Your task to perform on an android device: Show the shopping cart on ebay.com. Add "razer blade" to the cart on ebay.com, then select checkout. Image 0: 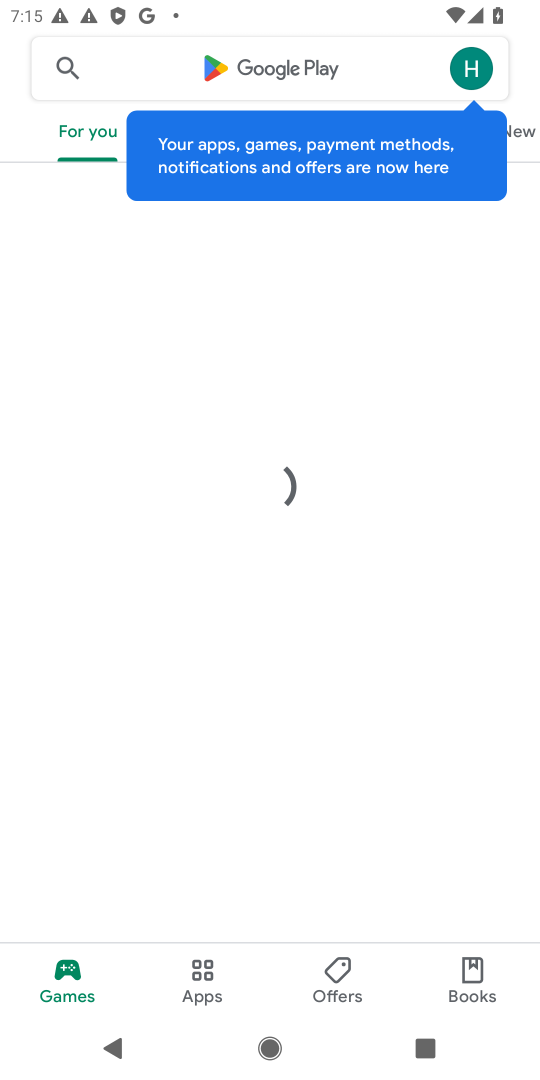
Step 0: press home button
Your task to perform on an android device: Show the shopping cart on ebay.com. Add "razer blade" to the cart on ebay.com, then select checkout. Image 1: 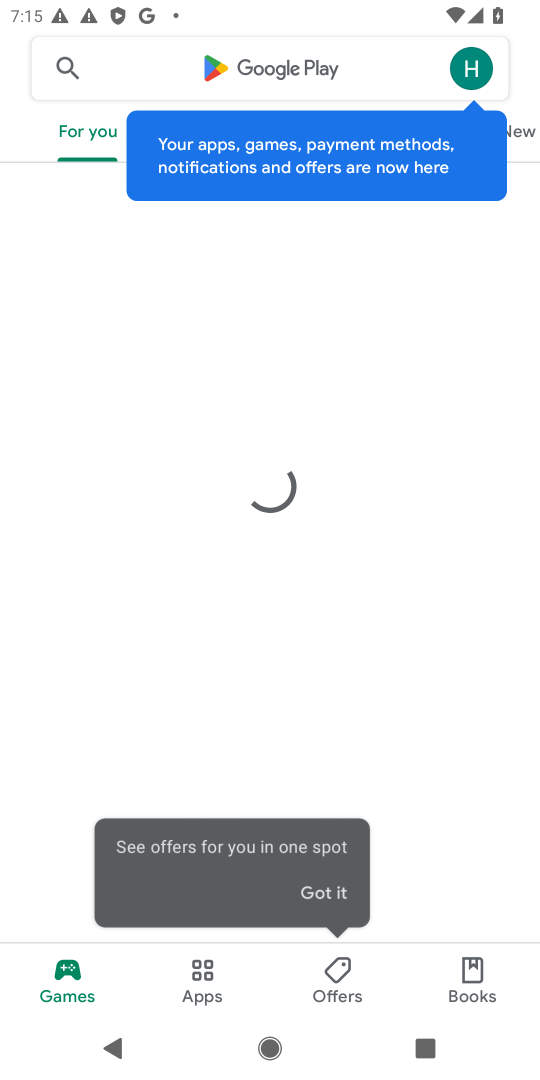
Step 1: press home button
Your task to perform on an android device: Show the shopping cart on ebay.com. Add "razer blade" to the cart on ebay.com, then select checkout. Image 2: 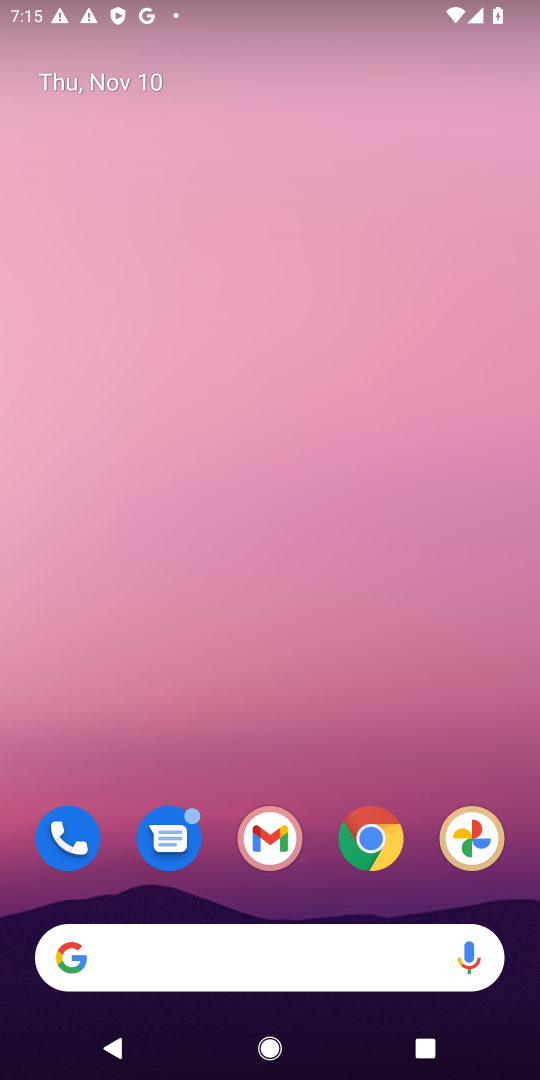
Step 2: drag from (324, 924) to (322, 138)
Your task to perform on an android device: Show the shopping cart on ebay.com. Add "razer blade" to the cart on ebay.com, then select checkout. Image 3: 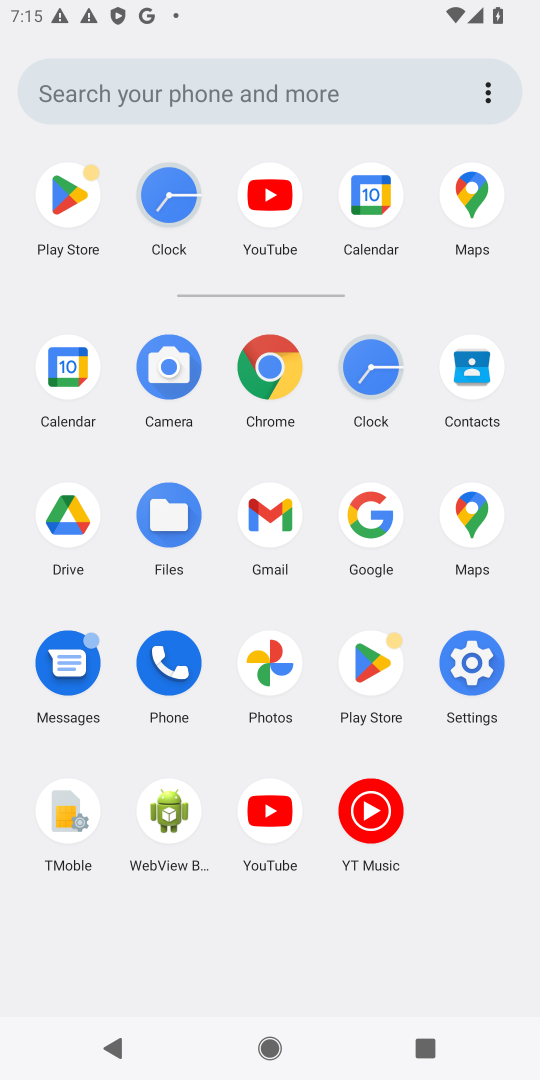
Step 3: click (263, 369)
Your task to perform on an android device: Show the shopping cart on ebay.com. Add "razer blade" to the cart on ebay.com, then select checkout. Image 4: 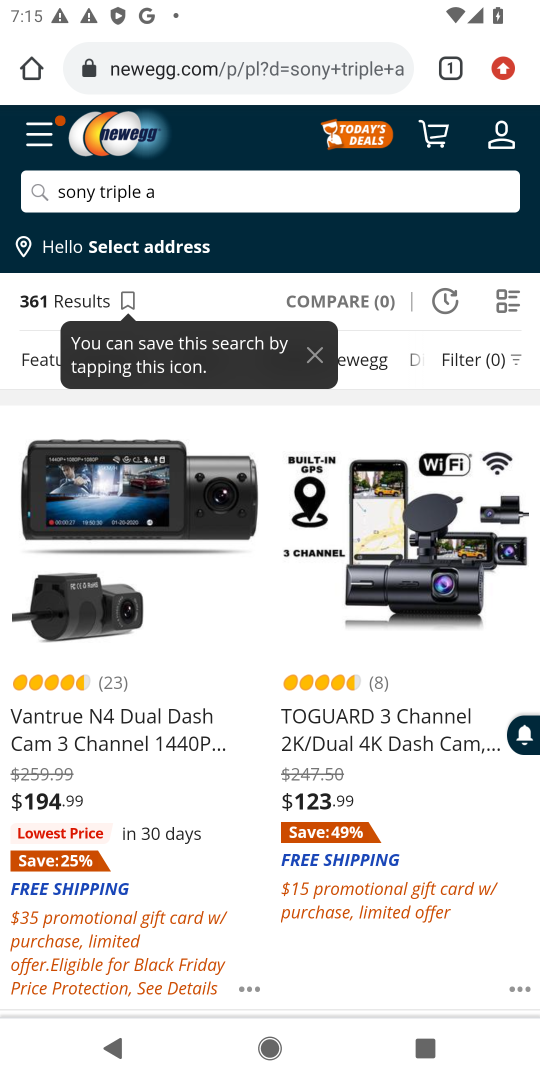
Step 4: click (267, 64)
Your task to perform on an android device: Show the shopping cart on ebay.com. Add "razer blade" to the cart on ebay.com, then select checkout. Image 5: 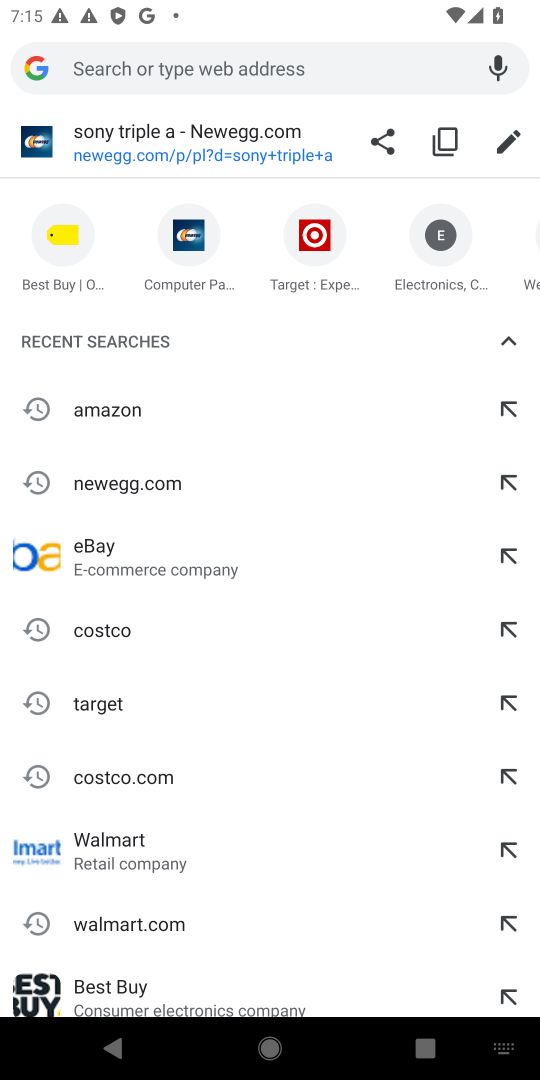
Step 5: type "ebay.com"
Your task to perform on an android device: Show the shopping cart on ebay.com. Add "razer blade" to the cart on ebay.com, then select checkout. Image 6: 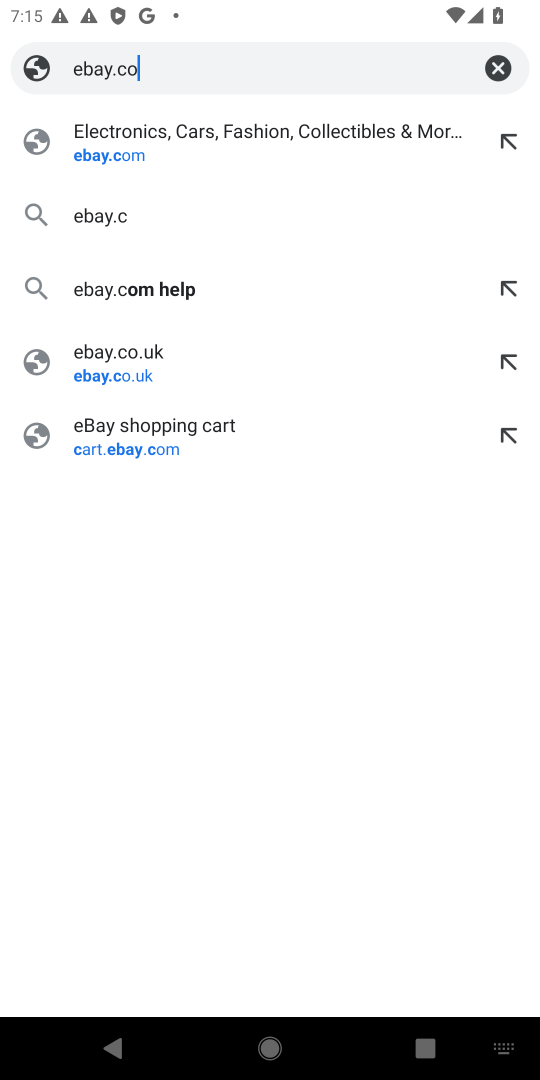
Step 6: press enter
Your task to perform on an android device: Show the shopping cart on ebay.com. Add "razer blade" to the cart on ebay.com, then select checkout. Image 7: 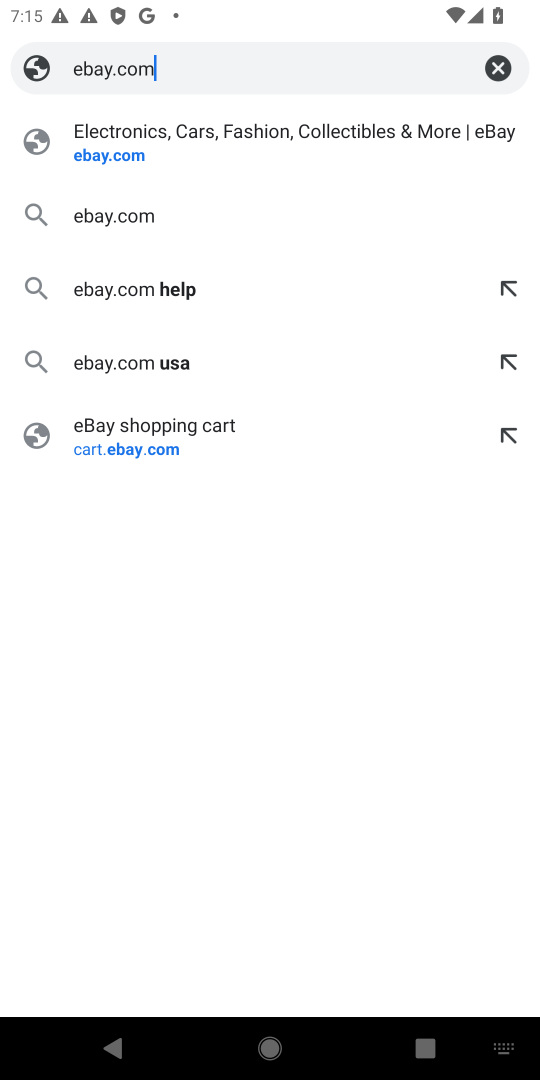
Step 7: press enter
Your task to perform on an android device: Show the shopping cart on ebay.com. Add "razer blade" to the cart on ebay.com, then select checkout. Image 8: 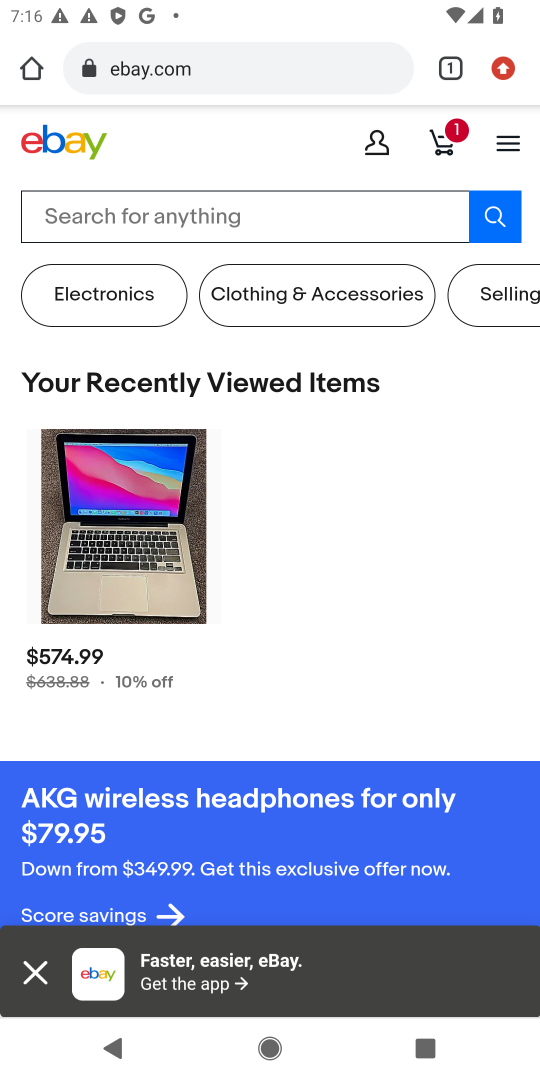
Step 8: click (444, 128)
Your task to perform on an android device: Show the shopping cart on ebay.com. Add "razer blade" to the cart on ebay.com, then select checkout. Image 9: 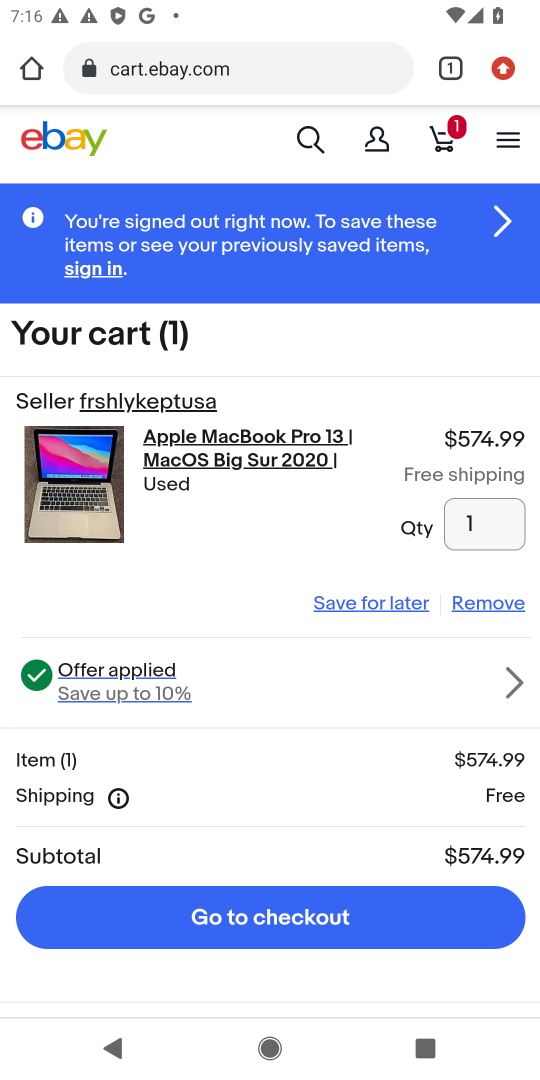
Step 9: click (500, 606)
Your task to perform on an android device: Show the shopping cart on ebay.com. Add "razer blade" to the cart on ebay.com, then select checkout. Image 10: 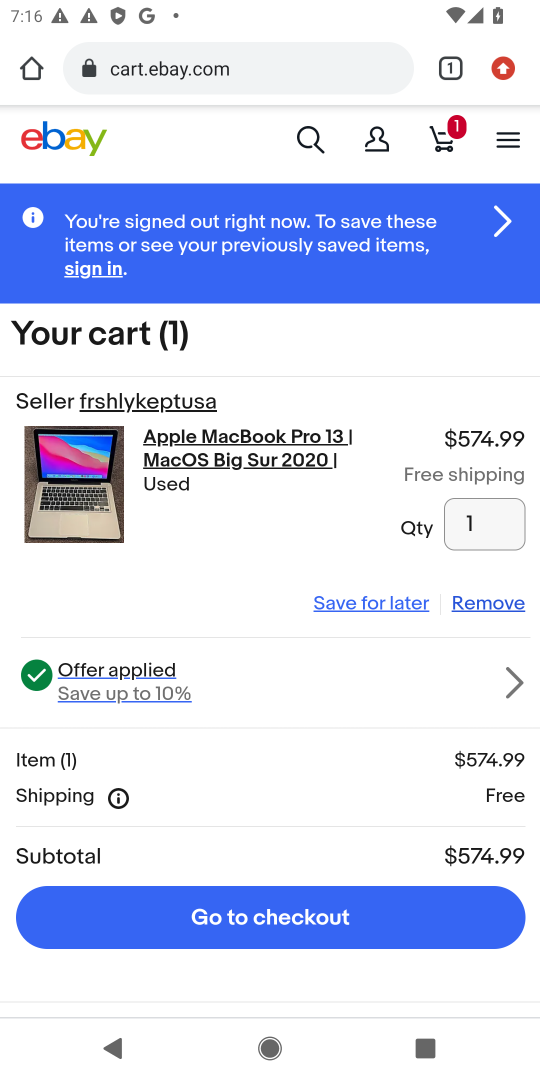
Step 10: click (307, 132)
Your task to perform on an android device: Show the shopping cart on ebay.com. Add "razer blade" to the cart on ebay.com, then select checkout. Image 11: 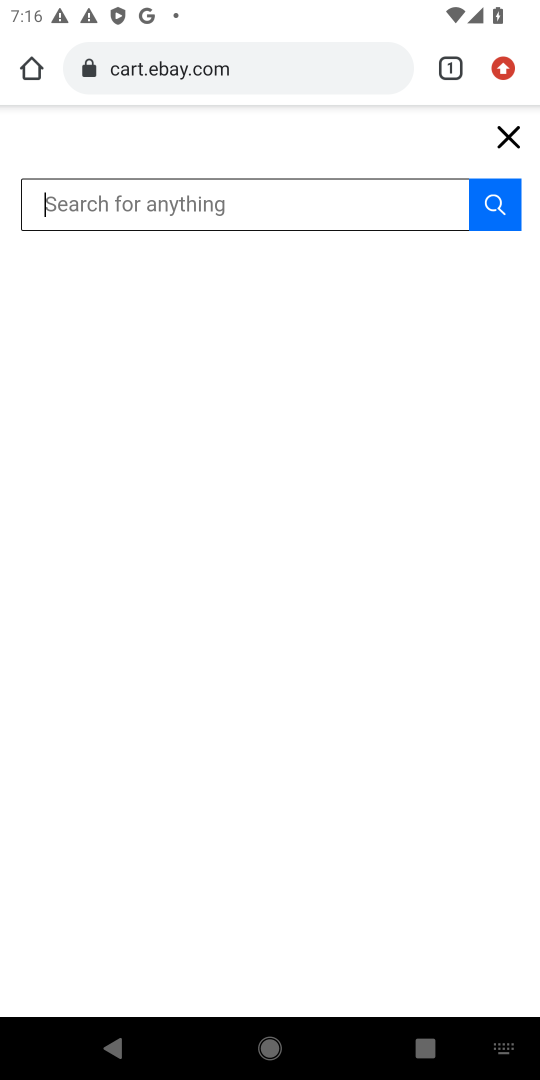
Step 11: type "razer blade"
Your task to perform on an android device: Show the shopping cart on ebay.com. Add "razer blade" to the cart on ebay.com, then select checkout. Image 12: 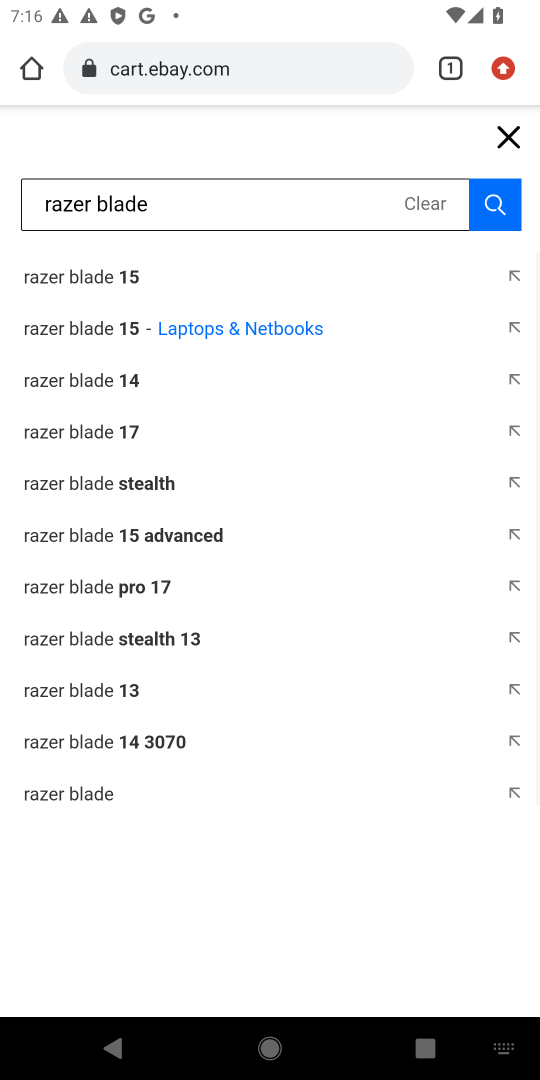
Step 12: press enter
Your task to perform on an android device: Show the shopping cart on ebay.com. Add "razer blade" to the cart on ebay.com, then select checkout. Image 13: 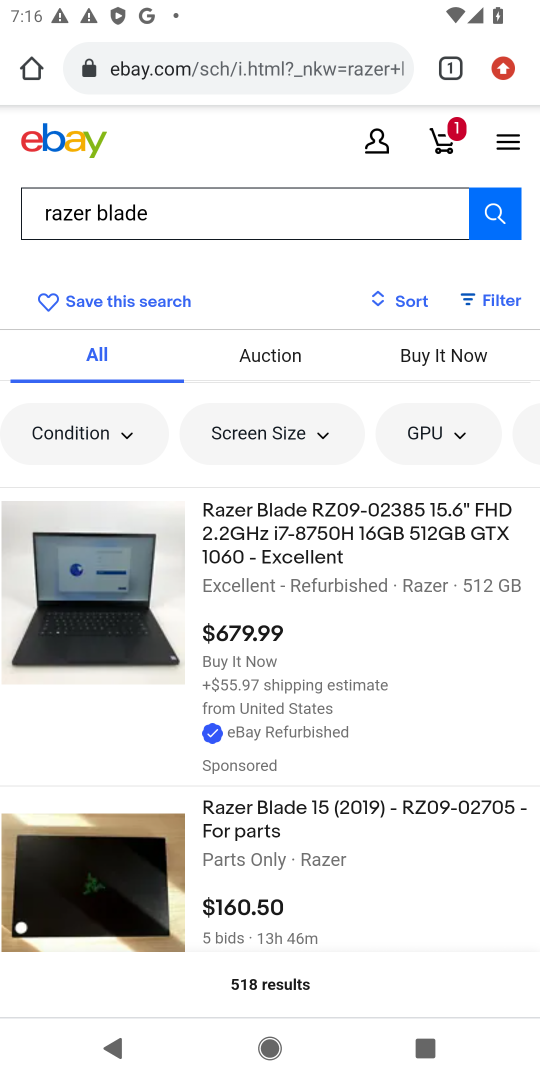
Step 13: click (354, 529)
Your task to perform on an android device: Show the shopping cart on ebay.com. Add "razer blade" to the cart on ebay.com, then select checkout. Image 14: 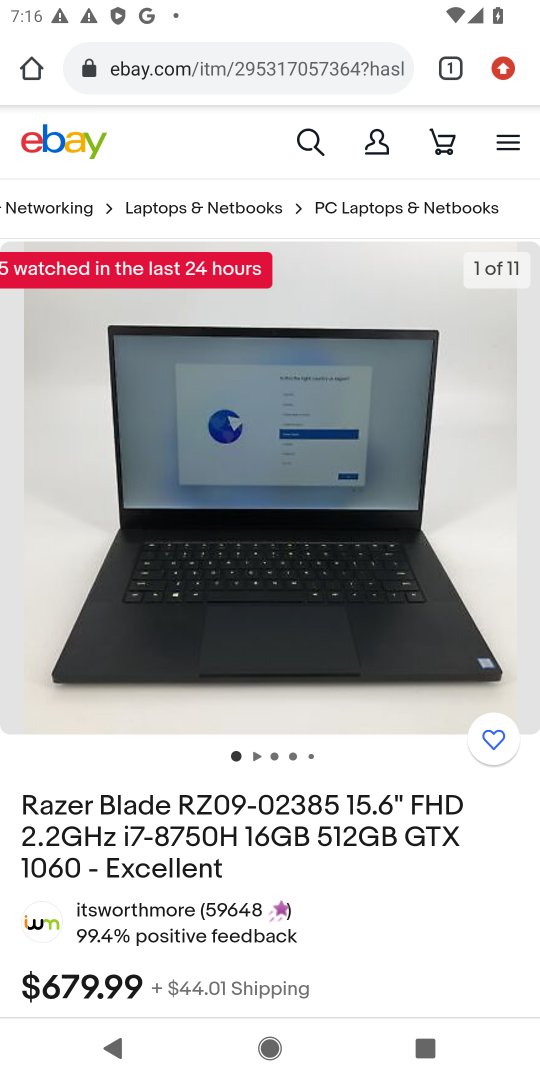
Step 14: drag from (316, 793) to (454, 167)
Your task to perform on an android device: Show the shopping cart on ebay.com. Add "razer blade" to the cart on ebay.com, then select checkout. Image 15: 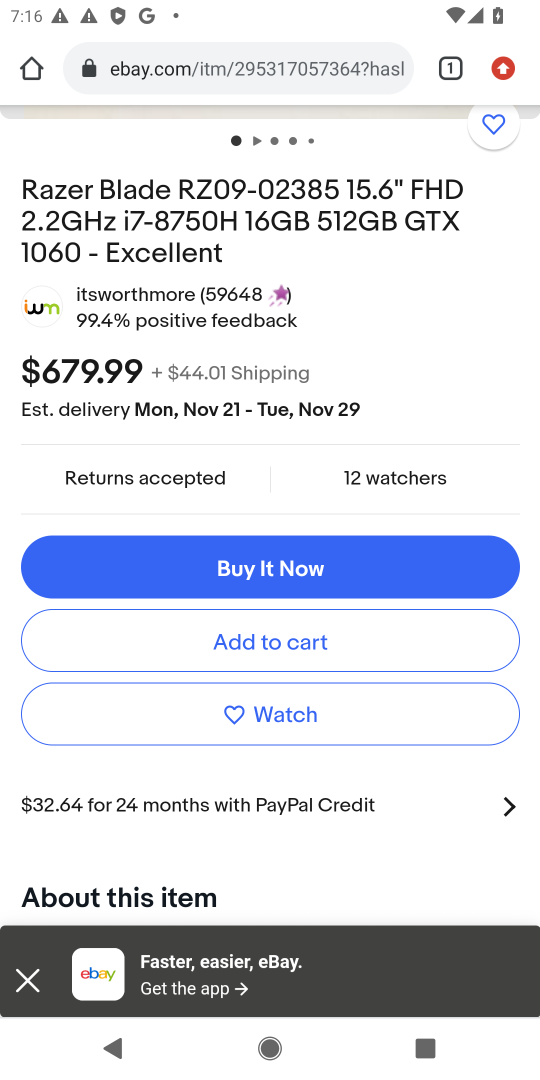
Step 15: click (370, 639)
Your task to perform on an android device: Show the shopping cart on ebay.com. Add "razer blade" to the cart on ebay.com, then select checkout. Image 16: 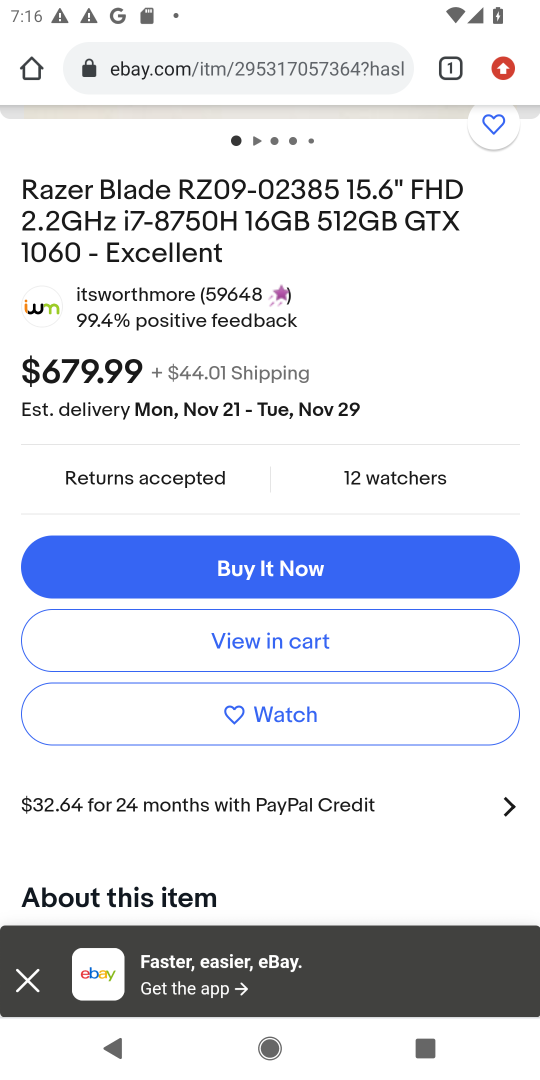
Step 16: click (316, 659)
Your task to perform on an android device: Show the shopping cart on ebay.com. Add "razer blade" to the cart on ebay.com, then select checkout. Image 17: 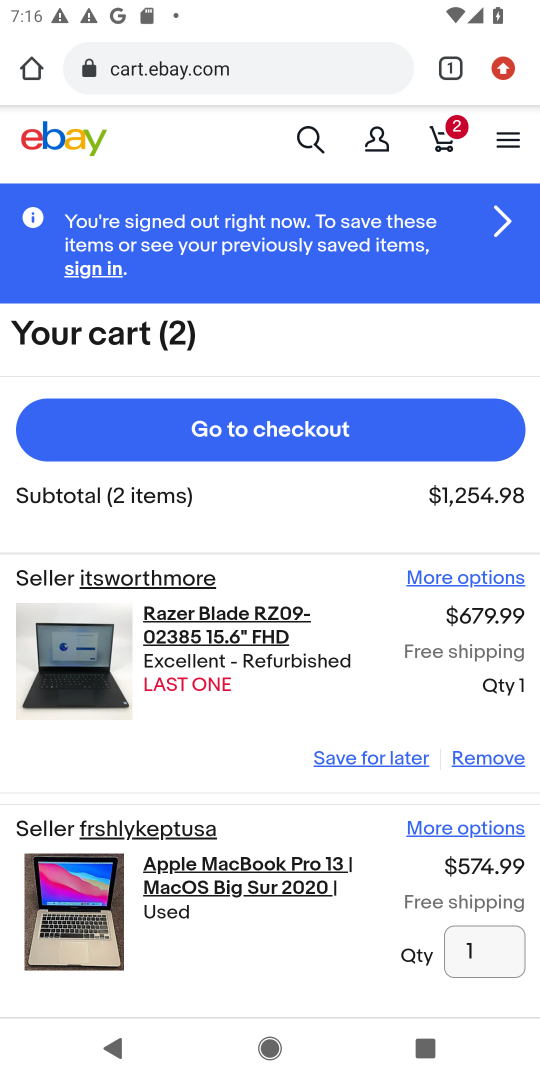
Step 17: drag from (307, 900) to (292, 186)
Your task to perform on an android device: Show the shopping cart on ebay.com. Add "razer blade" to the cart on ebay.com, then select checkout. Image 18: 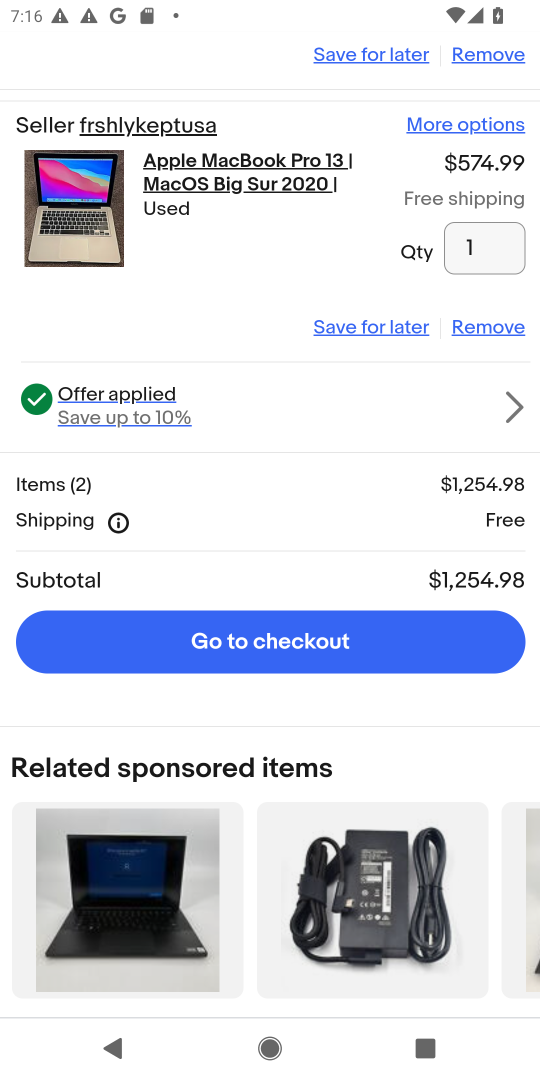
Step 18: click (322, 636)
Your task to perform on an android device: Show the shopping cart on ebay.com. Add "razer blade" to the cart on ebay.com, then select checkout. Image 19: 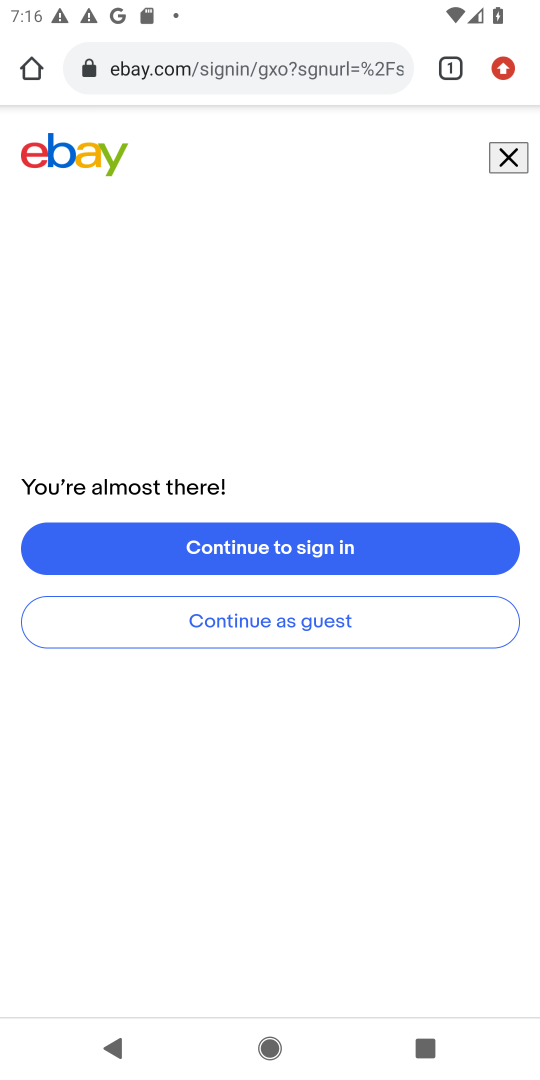
Step 19: task complete